Your task to perform on an android device: Open settings Image 0: 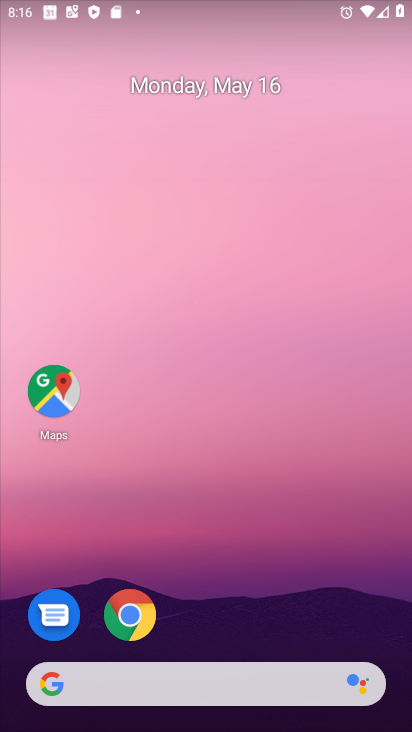
Step 0: drag from (239, 613) to (282, 42)
Your task to perform on an android device: Open settings Image 1: 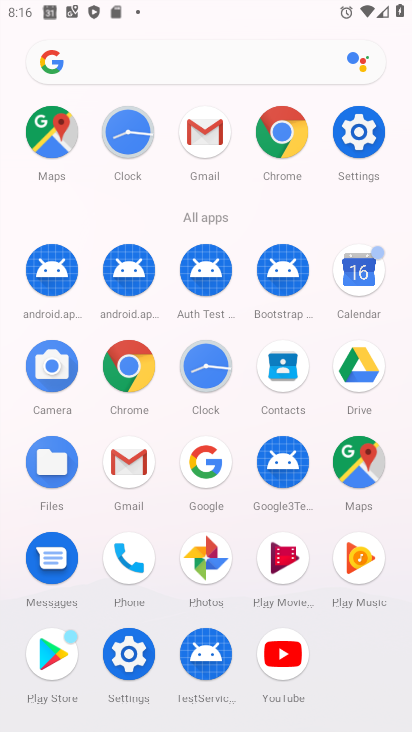
Step 1: click (373, 119)
Your task to perform on an android device: Open settings Image 2: 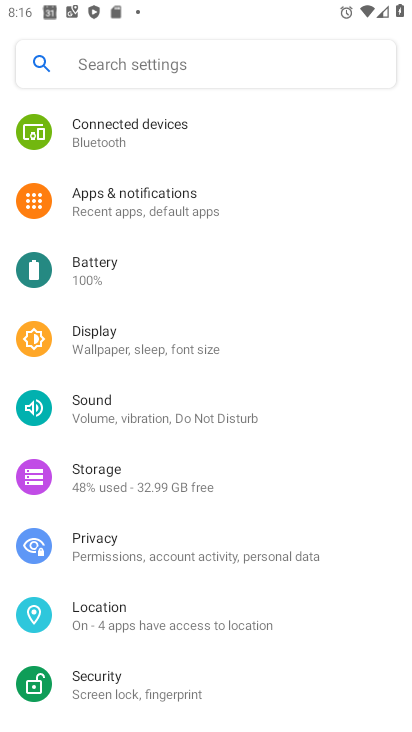
Step 2: task complete